Your task to perform on an android device: check google app version Image 0: 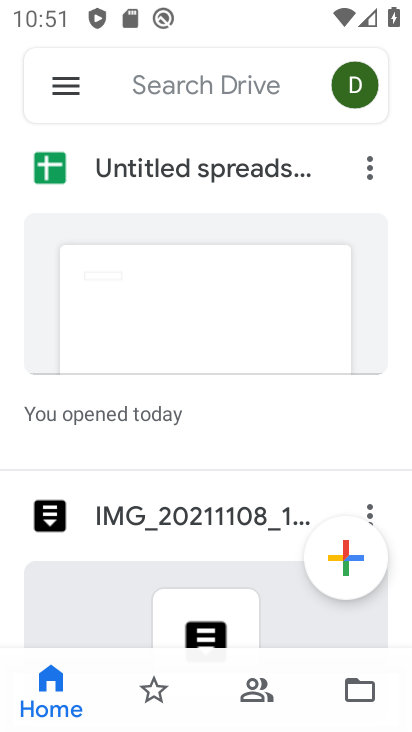
Step 0: press home button
Your task to perform on an android device: check google app version Image 1: 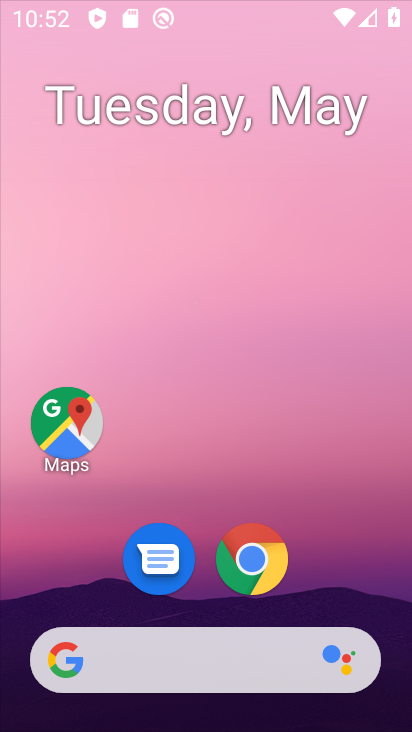
Step 1: drag from (215, 648) to (196, 7)
Your task to perform on an android device: check google app version Image 2: 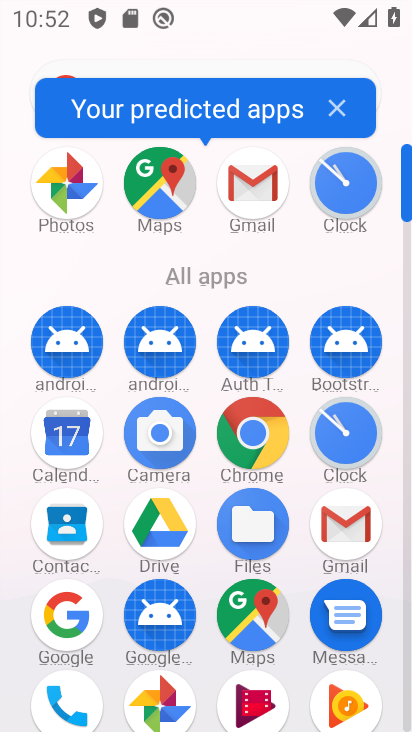
Step 2: click (81, 619)
Your task to perform on an android device: check google app version Image 3: 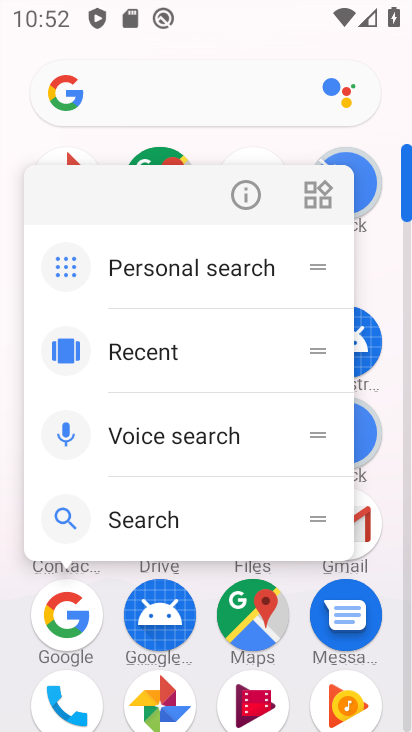
Step 3: click (245, 201)
Your task to perform on an android device: check google app version Image 4: 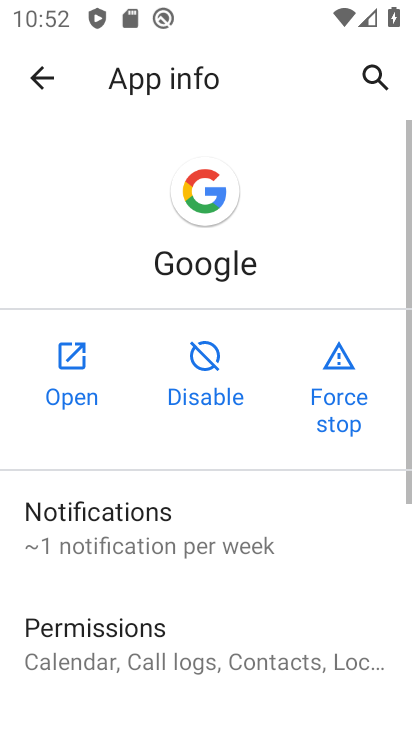
Step 4: drag from (249, 691) to (244, 93)
Your task to perform on an android device: check google app version Image 5: 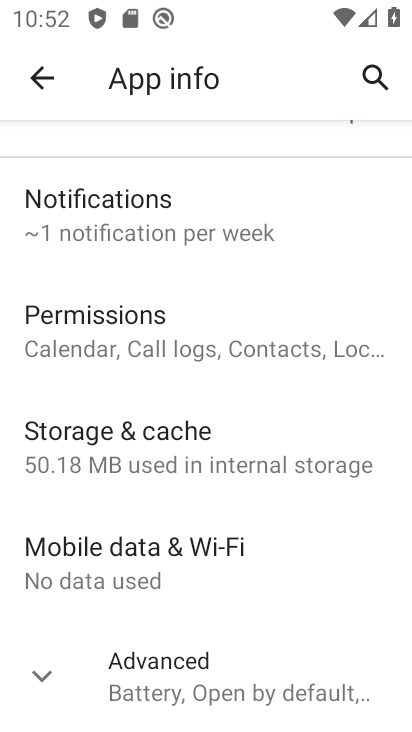
Step 5: click (211, 670)
Your task to perform on an android device: check google app version Image 6: 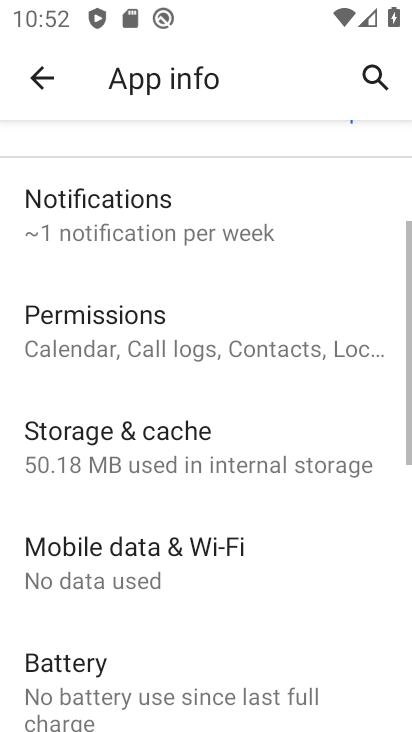
Step 6: drag from (211, 664) to (184, 130)
Your task to perform on an android device: check google app version Image 7: 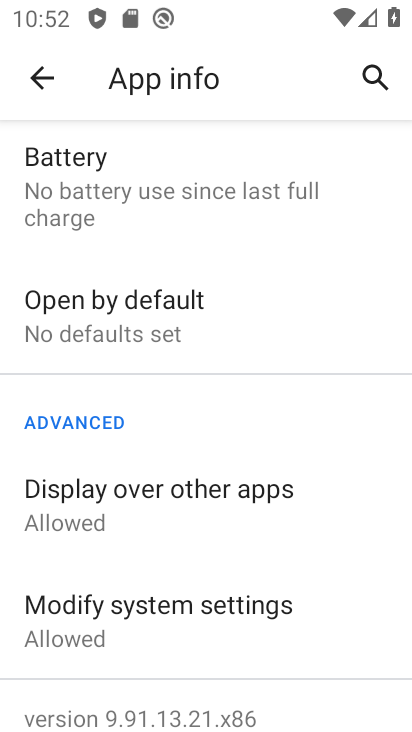
Step 7: drag from (176, 647) to (190, 243)
Your task to perform on an android device: check google app version Image 8: 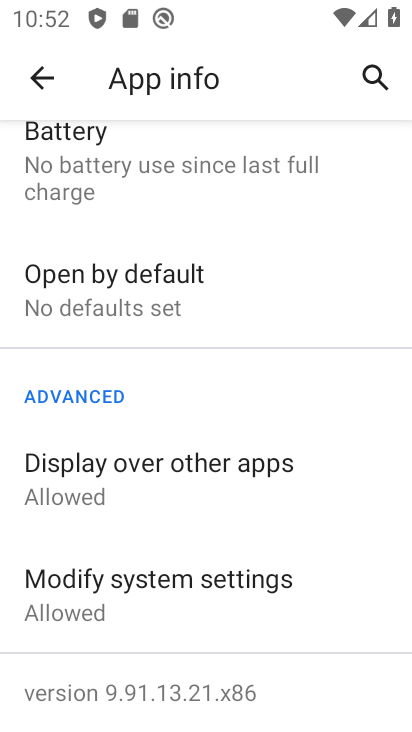
Step 8: click (233, 703)
Your task to perform on an android device: check google app version Image 9: 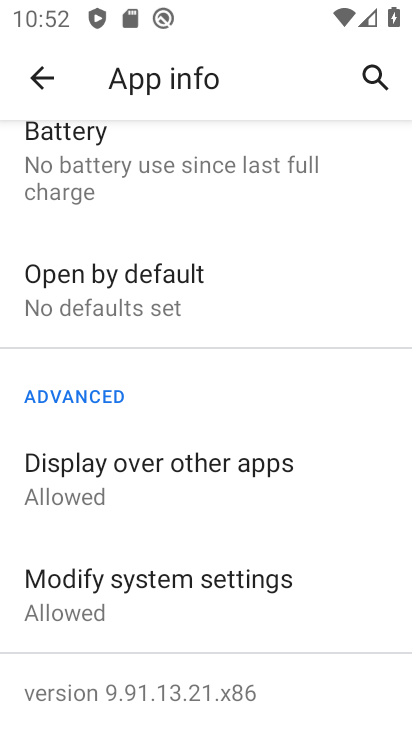
Step 9: task complete